Your task to perform on an android device: turn off location Image 0: 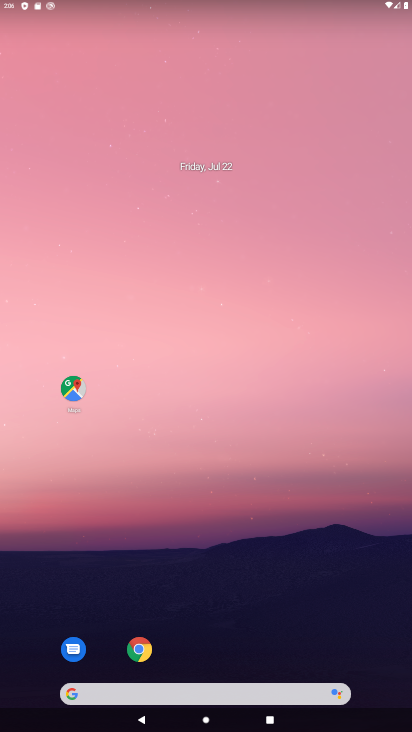
Step 0: press home button
Your task to perform on an android device: turn off location Image 1: 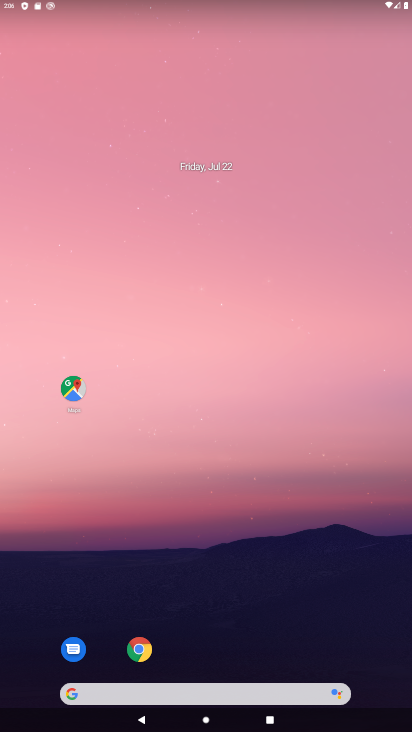
Step 1: press home button
Your task to perform on an android device: turn off location Image 2: 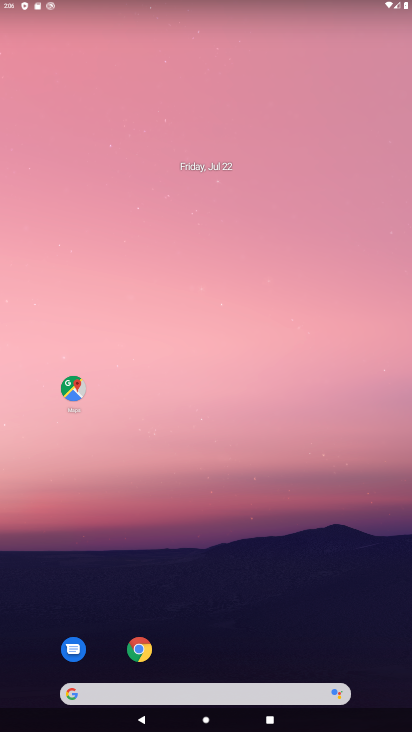
Step 2: drag from (207, 476) to (224, 71)
Your task to perform on an android device: turn off location Image 3: 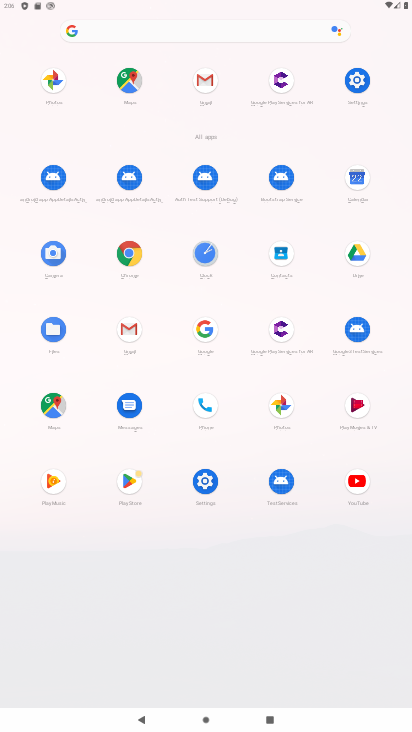
Step 3: click (198, 483)
Your task to perform on an android device: turn off location Image 4: 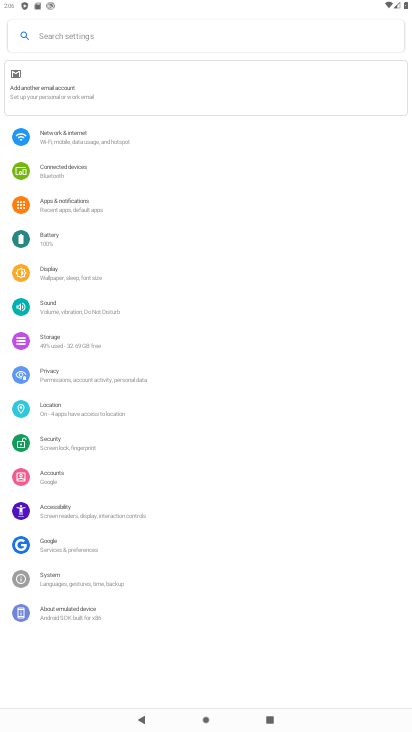
Step 4: click (51, 411)
Your task to perform on an android device: turn off location Image 5: 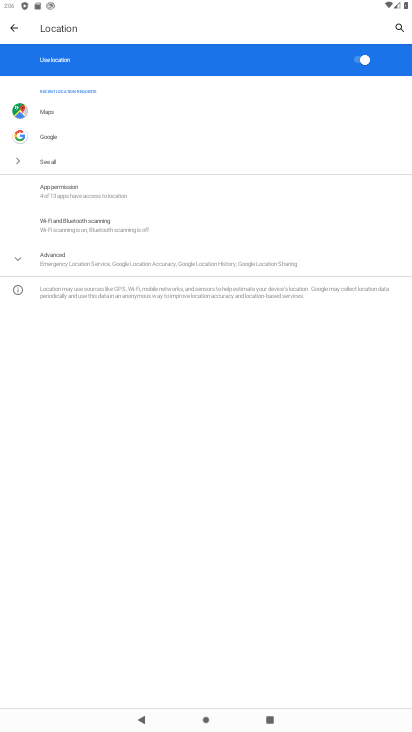
Step 5: click (364, 54)
Your task to perform on an android device: turn off location Image 6: 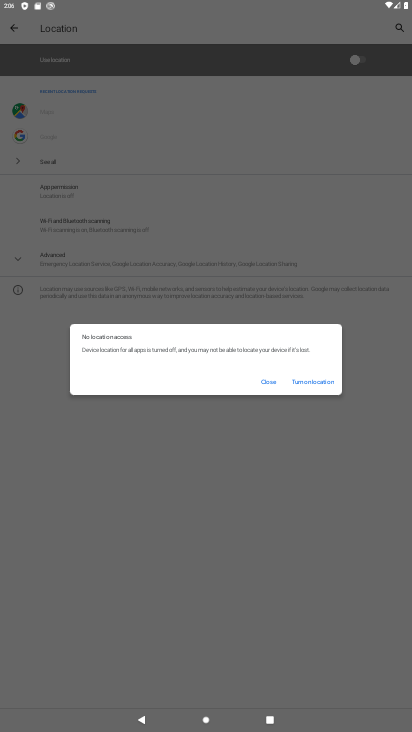
Step 6: task complete